Your task to perform on an android device: turn off priority inbox in the gmail app Image 0: 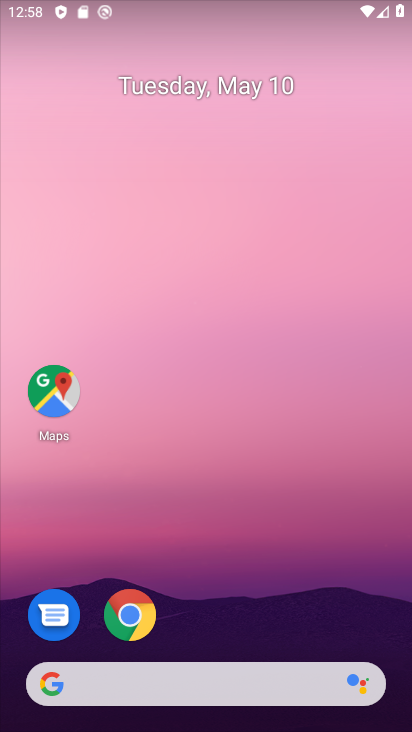
Step 0: drag from (259, 634) to (270, 2)
Your task to perform on an android device: turn off priority inbox in the gmail app Image 1: 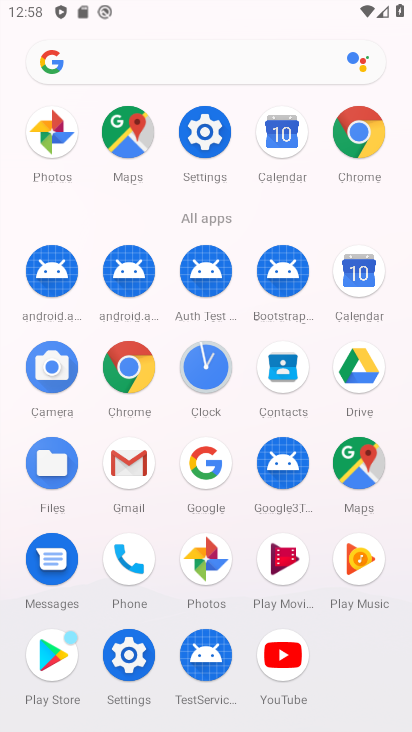
Step 1: click (211, 135)
Your task to perform on an android device: turn off priority inbox in the gmail app Image 2: 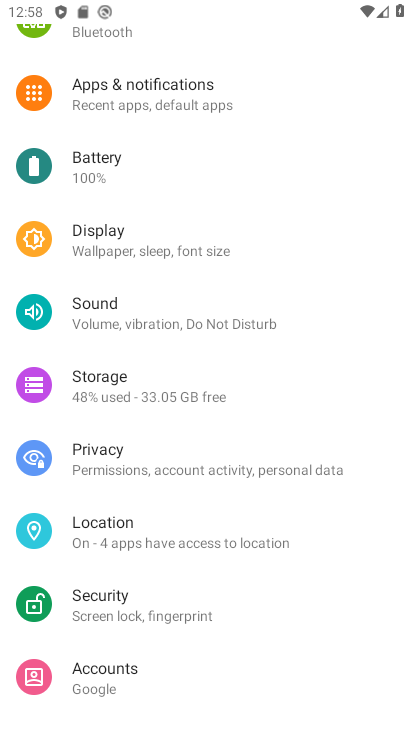
Step 2: press home button
Your task to perform on an android device: turn off priority inbox in the gmail app Image 3: 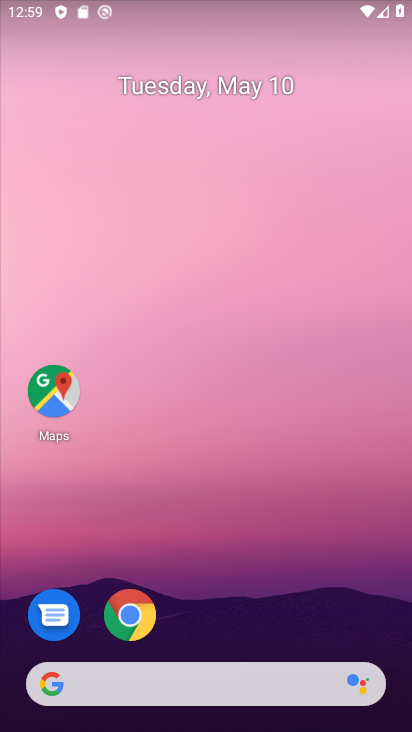
Step 3: drag from (226, 633) to (244, 59)
Your task to perform on an android device: turn off priority inbox in the gmail app Image 4: 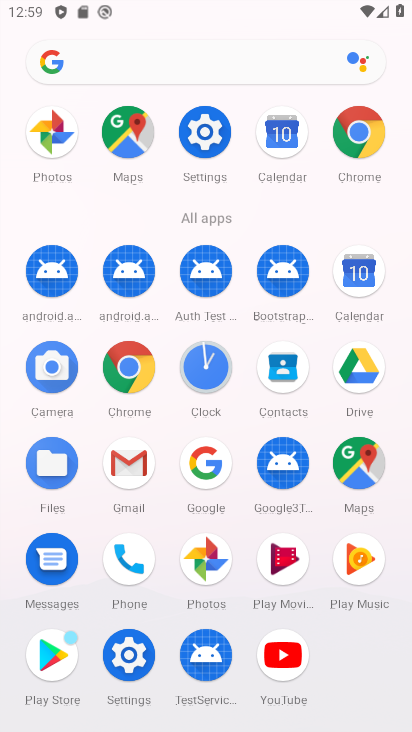
Step 4: click (125, 477)
Your task to perform on an android device: turn off priority inbox in the gmail app Image 5: 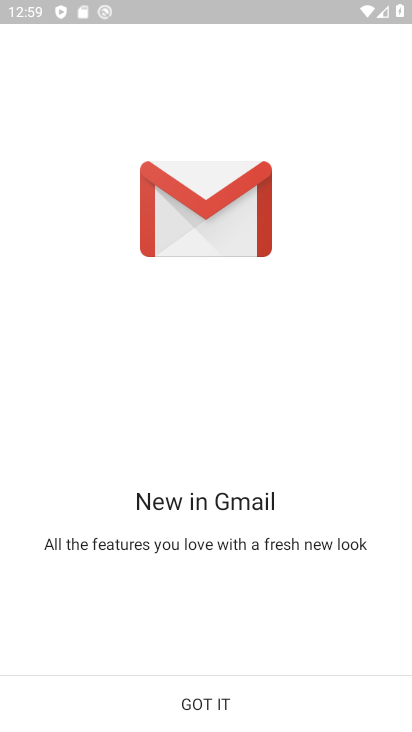
Step 5: click (281, 714)
Your task to perform on an android device: turn off priority inbox in the gmail app Image 6: 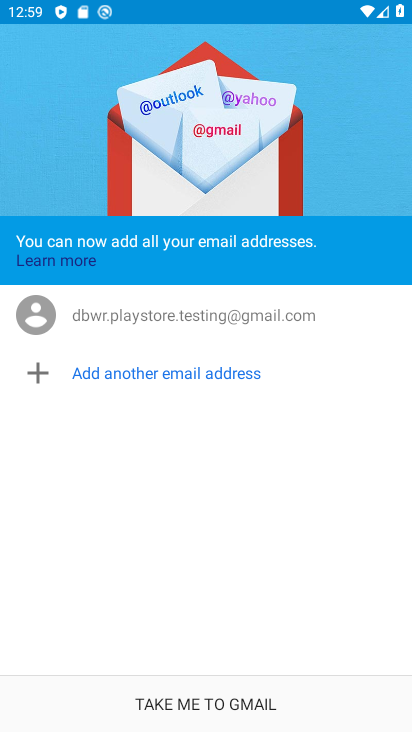
Step 6: click (212, 710)
Your task to perform on an android device: turn off priority inbox in the gmail app Image 7: 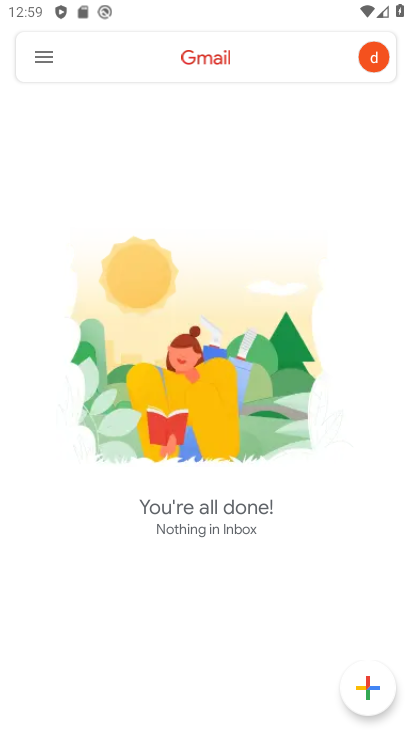
Step 7: click (55, 65)
Your task to perform on an android device: turn off priority inbox in the gmail app Image 8: 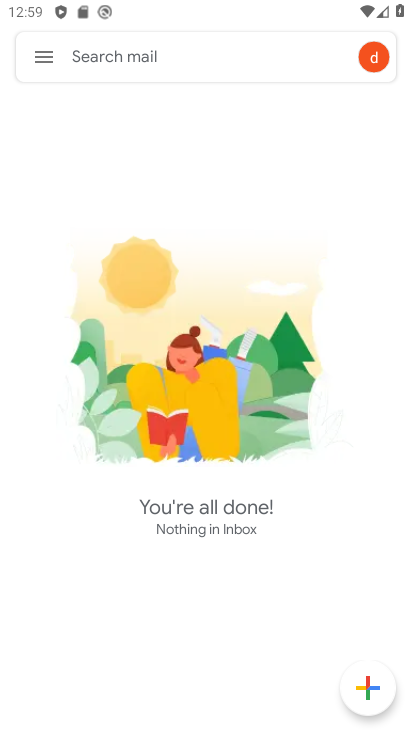
Step 8: click (32, 52)
Your task to perform on an android device: turn off priority inbox in the gmail app Image 9: 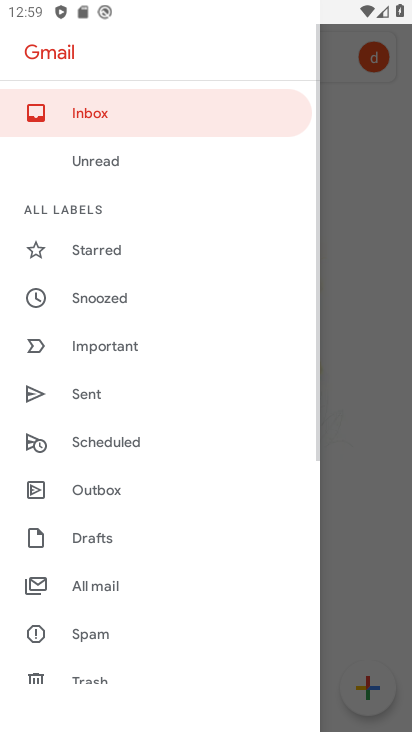
Step 9: drag from (120, 646) to (141, 312)
Your task to perform on an android device: turn off priority inbox in the gmail app Image 10: 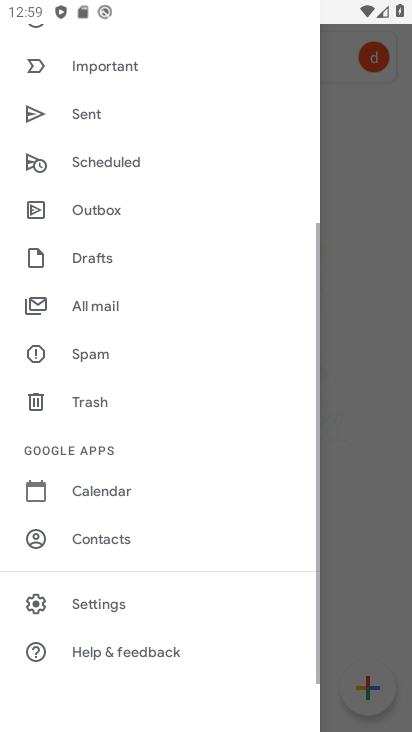
Step 10: click (131, 604)
Your task to perform on an android device: turn off priority inbox in the gmail app Image 11: 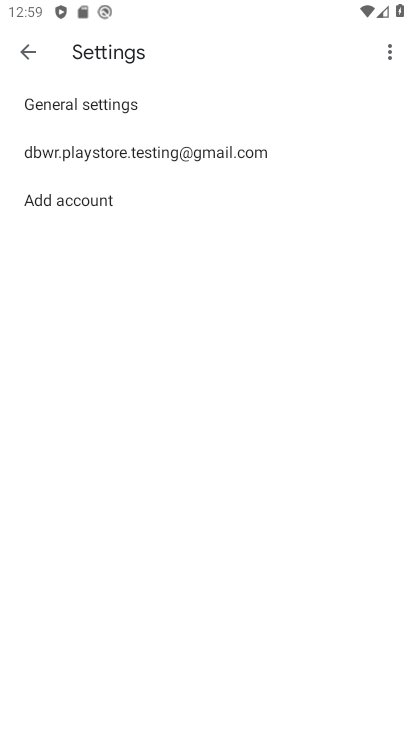
Step 11: click (159, 154)
Your task to perform on an android device: turn off priority inbox in the gmail app Image 12: 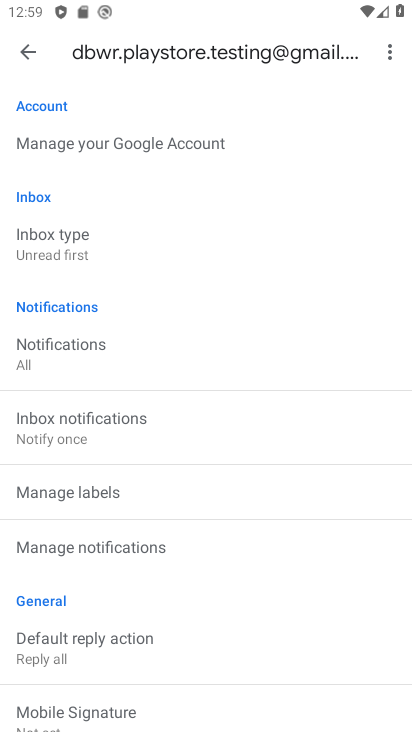
Step 12: click (99, 250)
Your task to perform on an android device: turn off priority inbox in the gmail app Image 13: 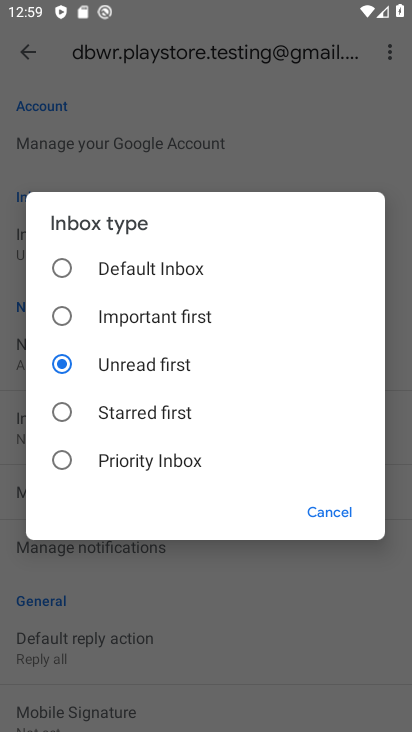
Step 13: click (115, 464)
Your task to perform on an android device: turn off priority inbox in the gmail app Image 14: 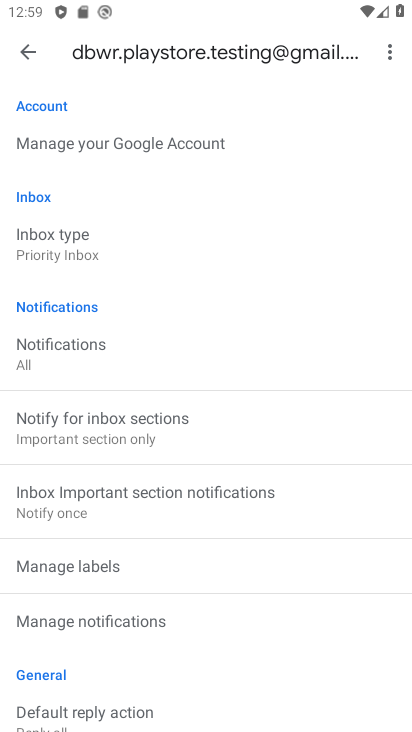
Step 14: click (74, 234)
Your task to perform on an android device: turn off priority inbox in the gmail app Image 15: 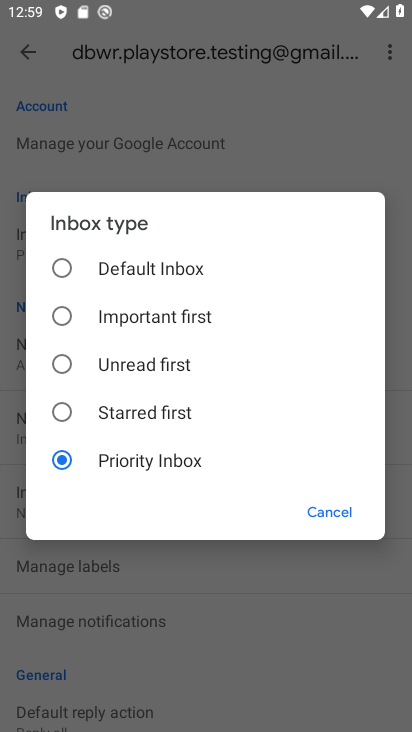
Step 15: click (104, 274)
Your task to perform on an android device: turn off priority inbox in the gmail app Image 16: 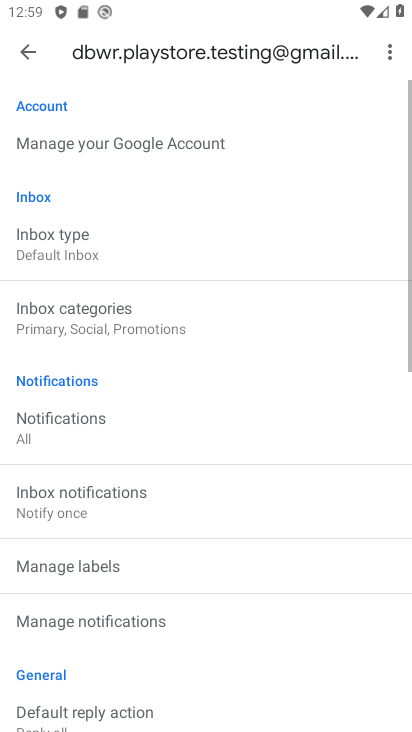
Step 16: task complete